Your task to perform on an android device: Open Chrome and go to the settings page Image 0: 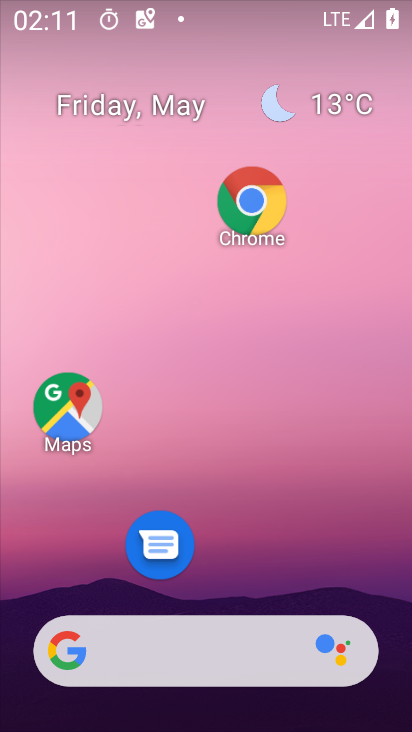
Step 0: click (233, 214)
Your task to perform on an android device: Open Chrome and go to the settings page Image 1: 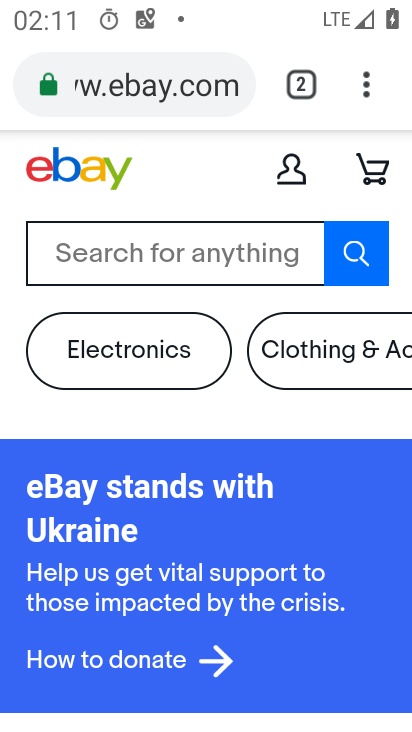
Step 1: click (363, 85)
Your task to perform on an android device: Open Chrome and go to the settings page Image 2: 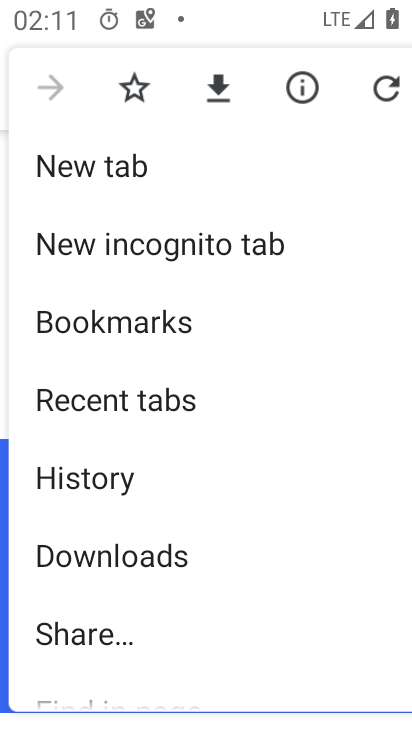
Step 2: drag from (103, 587) to (184, 248)
Your task to perform on an android device: Open Chrome and go to the settings page Image 3: 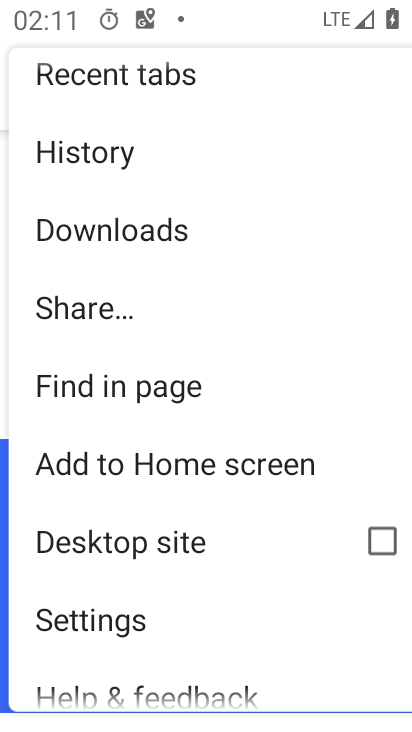
Step 3: click (92, 617)
Your task to perform on an android device: Open Chrome and go to the settings page Image 4: 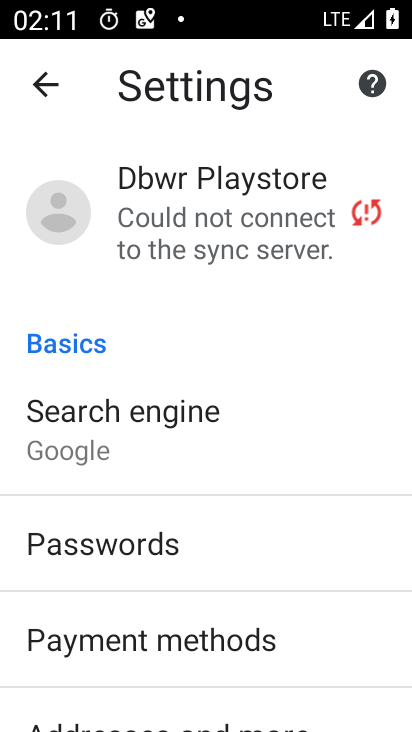
Step 4: task complete